Your task to perform on an android device: add a contact in the contacts app Image 0: 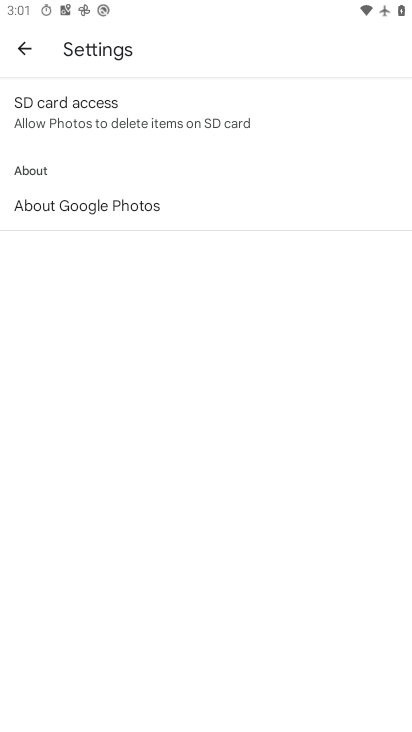
Step 0: press home button
Your task to perform on an android device: add a contact in the contacts app Image 1: 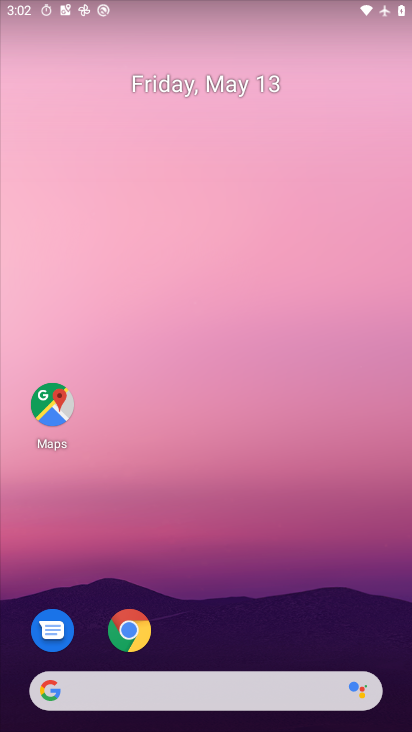
Step 1: drag from (289, 590) to (307, 137)
Your task to perform on an android device: add a contact in the contacts app Image 2: 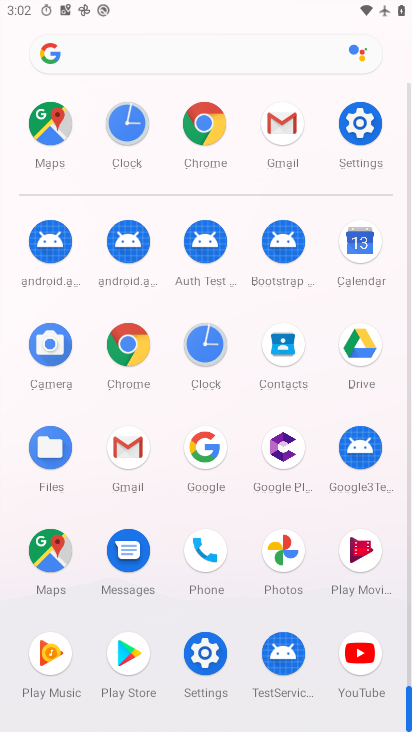
Step 2: click (292, 356)
Your task to perform on an android device: add a contact in the contacts app Image 3: 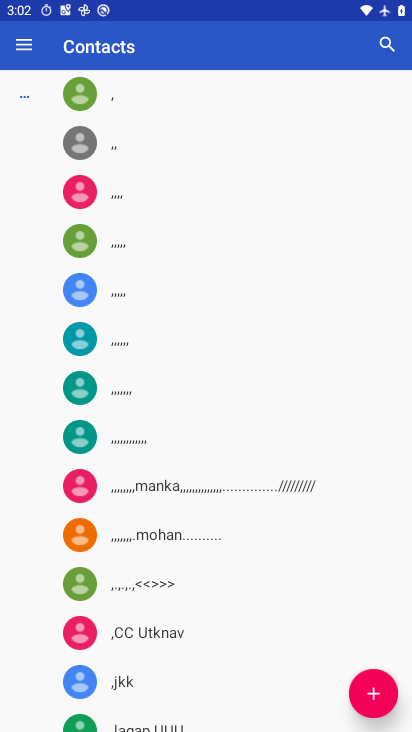
Step 3: click (373, 694)
Your task to perform on an android device: add a contact in the contacts app Image 4: 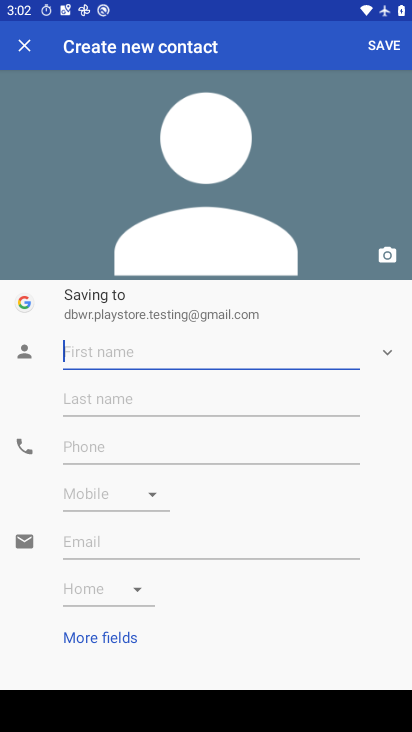
Step 4: type "hfgfgu"
Your task to perform on an android device: add a contact in the contacts app Image 5: 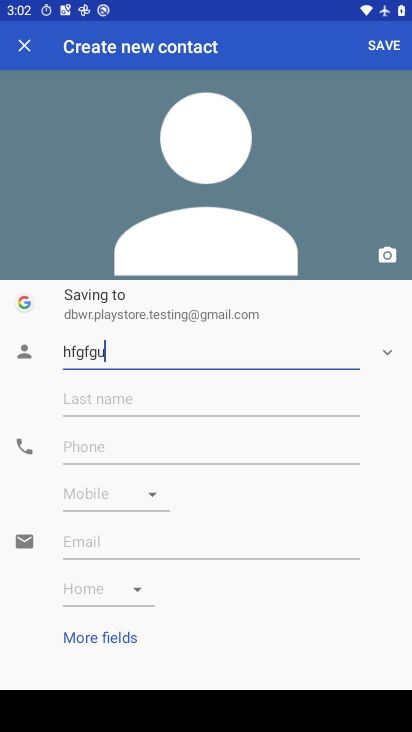
Step 5: type ""
Your task to perform on an android device: add a contact in the contacts app Image 6: 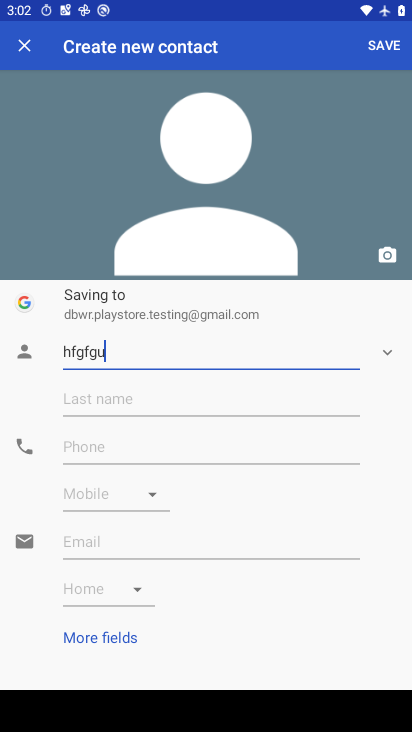
Step 6: click (376, 41)
Your task to perform on an android device: add a contact in the contacts app Image 7: 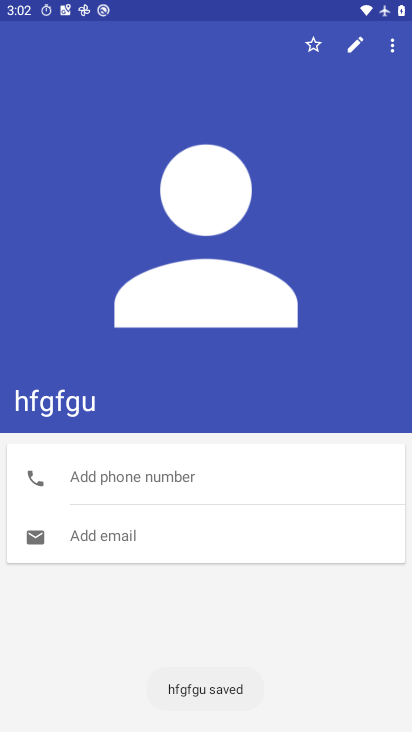
Step 7: task complete